Your task to perform on an android device: uninstall "Google News" Image 0: 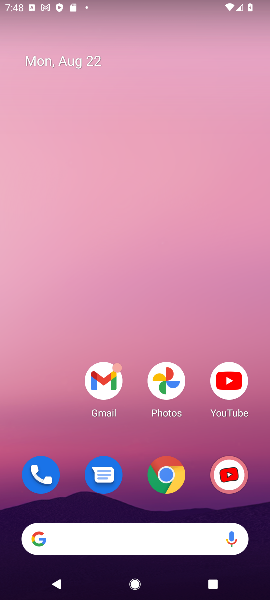
Step 0: drag from (139, 498) to (1, 102)
Your task to perform on an android device: uninstall "Google News" Image 1: 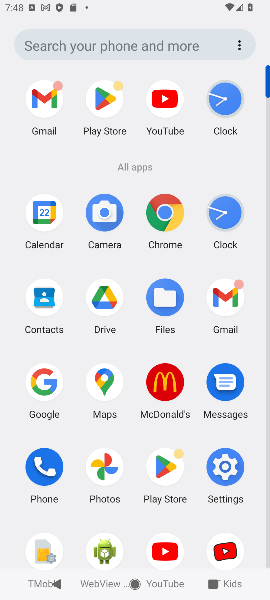
Step 1: click (108, 105)
Your task to perform on an android device: uninstall "Google News" Image 2: 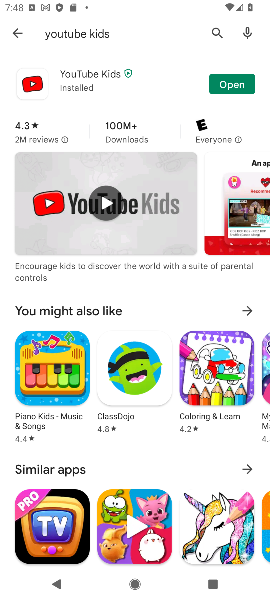
Step 2: click (102, 37)
Your task to perform on an android device: uninstall "Google News" Image 3: 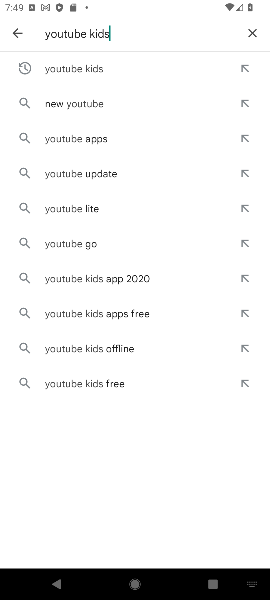
Step 3: click (247, 27)
Your task to perform on an android device: uninstall "Google News" Image 4: 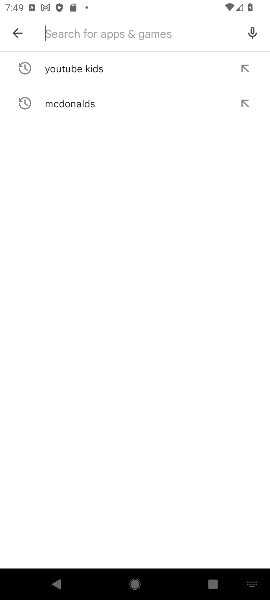
Step 4: type "google news"
Your task to perform on an android device: uninstall "Google News" Image 5: 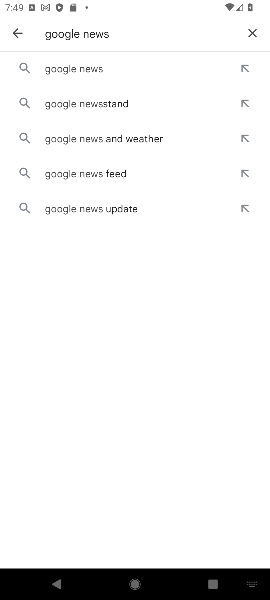
Step 5: click (108, 73)
Your task to perform on an android device: uninstall "Google News" Image 6: 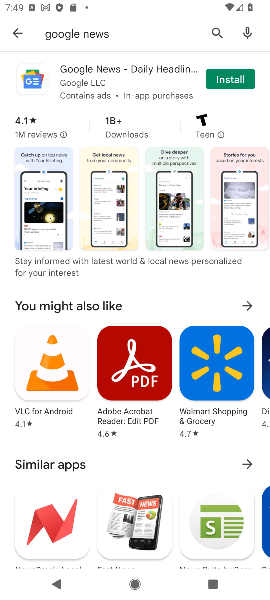
Step 6: task complete